Your task to perform on an android device: Open Chrome and go to the settings page Image 0: 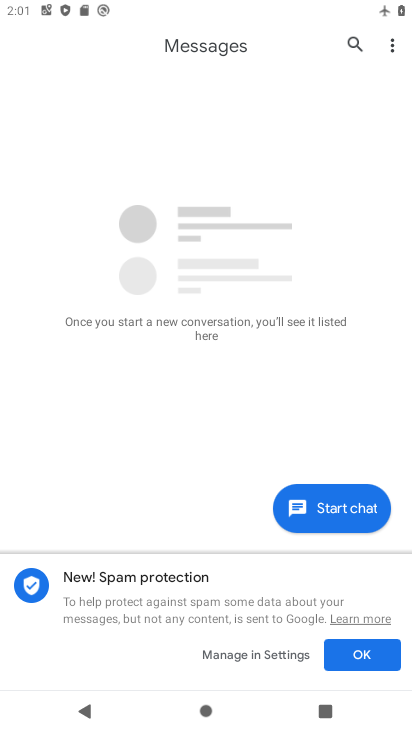
Step 0: click (60, 386)
Your task to perform on an android device: Open Chrome and go to the settings page Image 1: 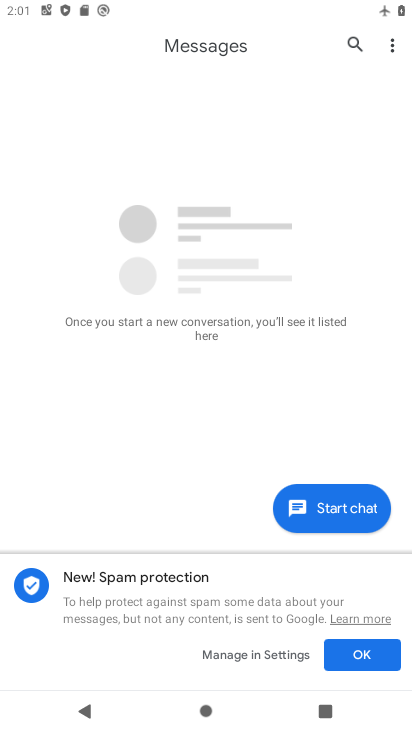
Step 1: press home button
Your task to perform on an android device: Open Chrome and go to the settings page Image 2: 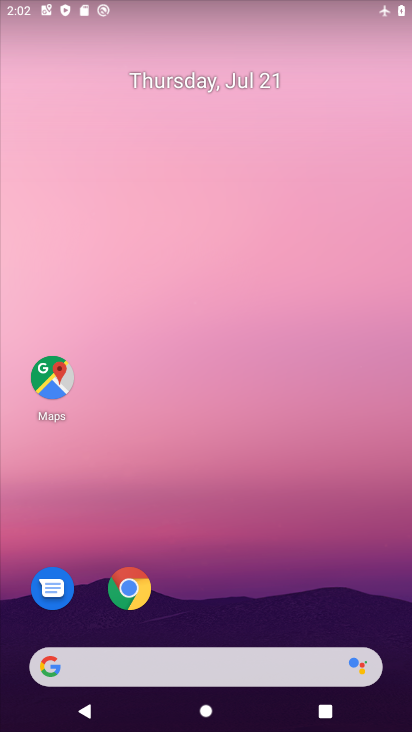
Step 2: click (146, 587)
Your task to perform on an android device: Open Chrome and go to the settings page Image 3: 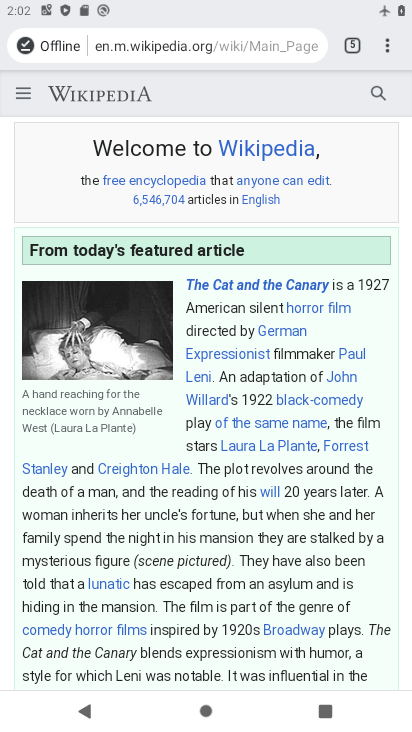
Step 3: task complete